Your task to perform on an android device: Open the Play Movies app and select the watchlist tab. Image 0: 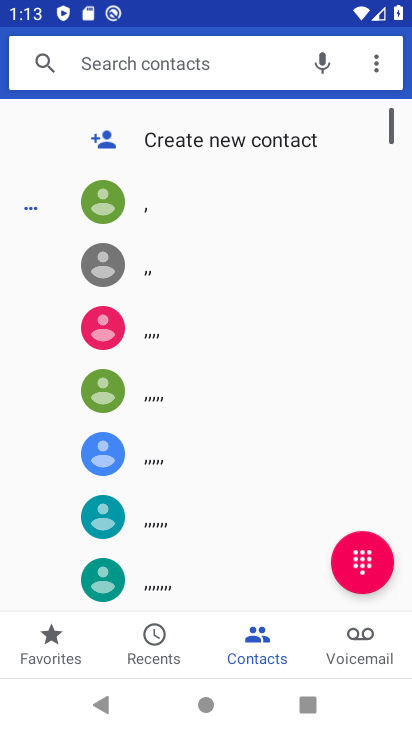
Step 0: press home button
Your task to perform on an android device: Open the Play Movies app and select the watchlist tab. Image 1: 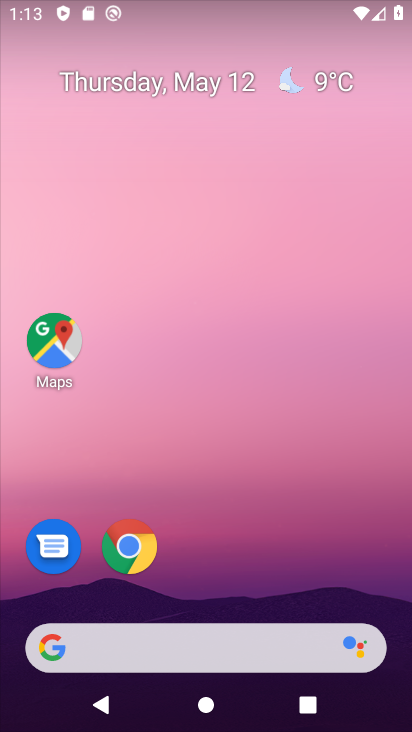
Step 1: drag from (249, 667) to (258, 233)
Your task to perform on an android device: Open the Play Movies app and select the watchlist tab. Image 2: 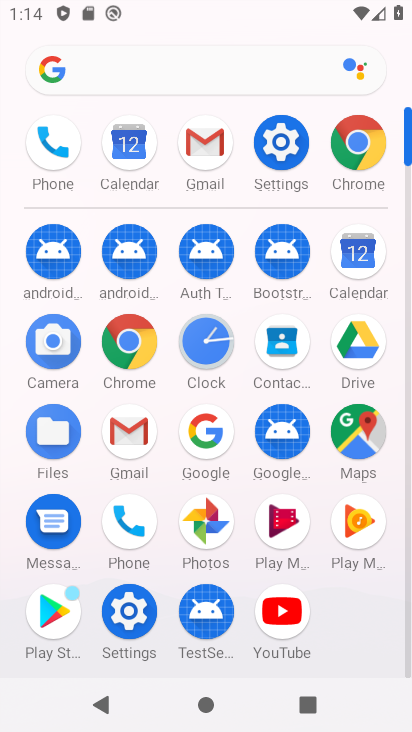
Step 2: click (289, 529)
Your task to perform on an android device: Open the Play Movies app and select the watchlist tab. Image 3: 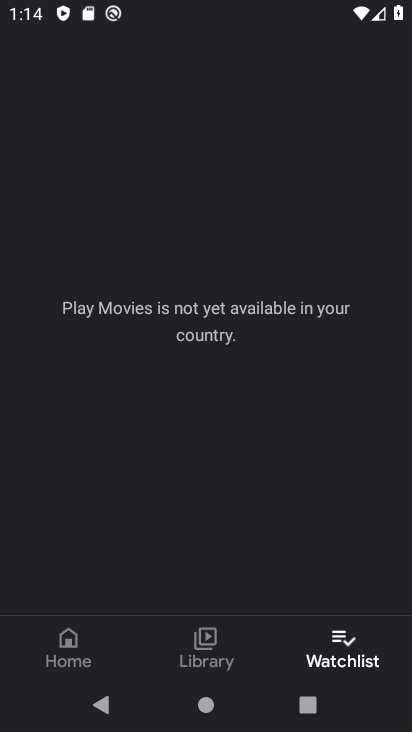
Step 3: task complete